Your task to perform on an android device: What's the weather? Image 0: 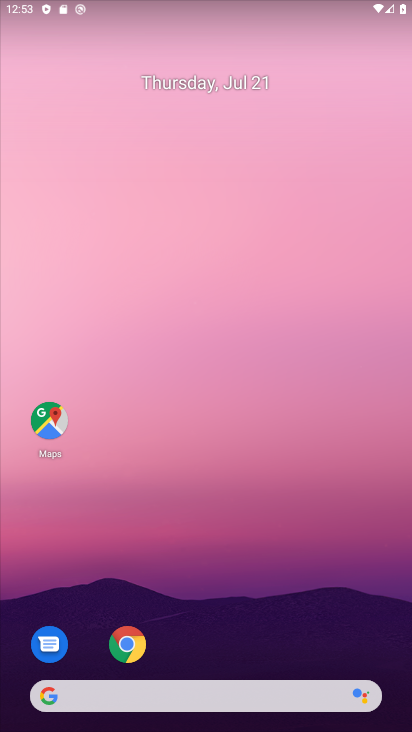
Step 0: click (215, 691)
Your task to perform on an android device: What's the weather? Image 1: 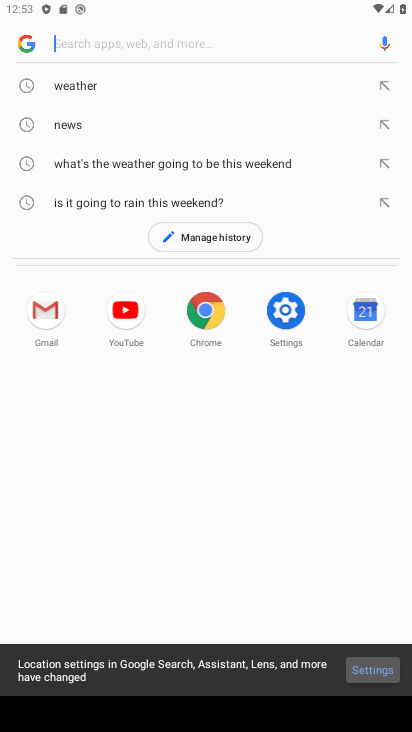
Step 1: click (65, 98)
Your task to perform on an android device: What's the weather? Image 2: 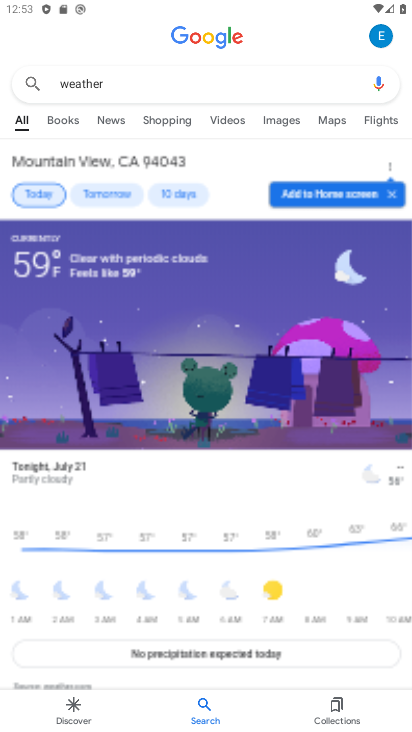
Step 2: task complete